Your task to perform on an android device: Show me popular videos on Youtube Image 0: 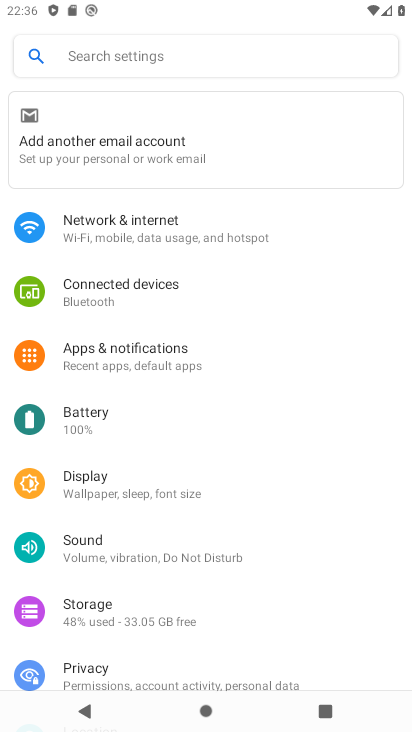
Step 0: press home button
Your task to perform on an android device: Show me popular videos on Youtube Image 1: 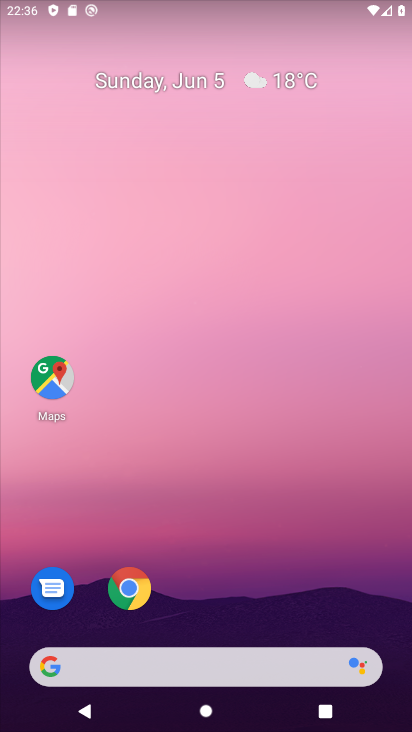
Step 1: drag from (395, 586) to (288, 118)
Your task to perform on an android device: Show me popular videos on Youtube Image 2: 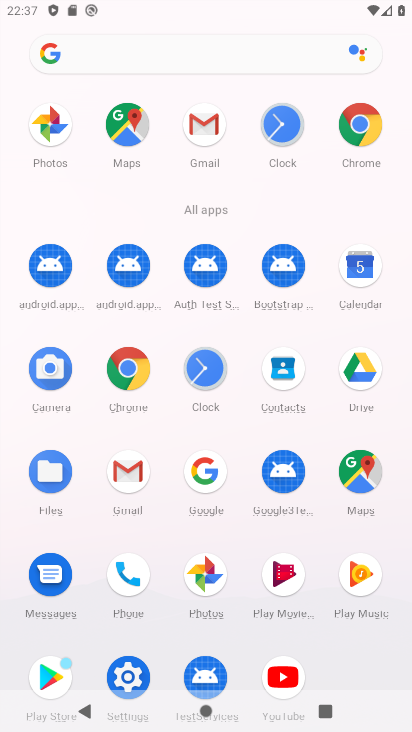
Step 2: click (288, 662)
Your task to perform on an android device: Show me popular videos on Youtube Image 3: 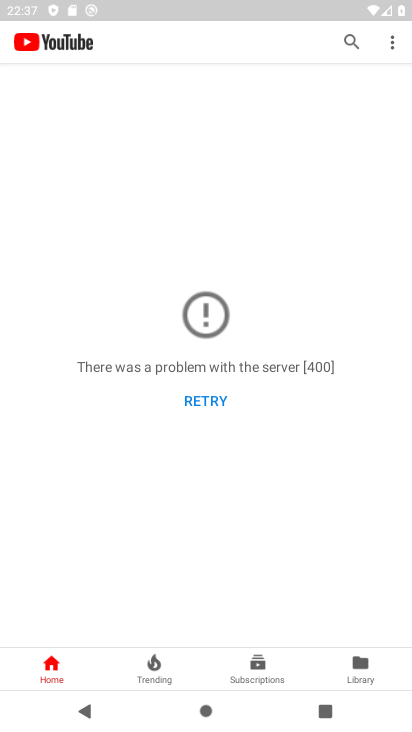
Step 3: click (170, 672)
Your task to perform on an android device: Show me popular videos on Youtube Image 4: 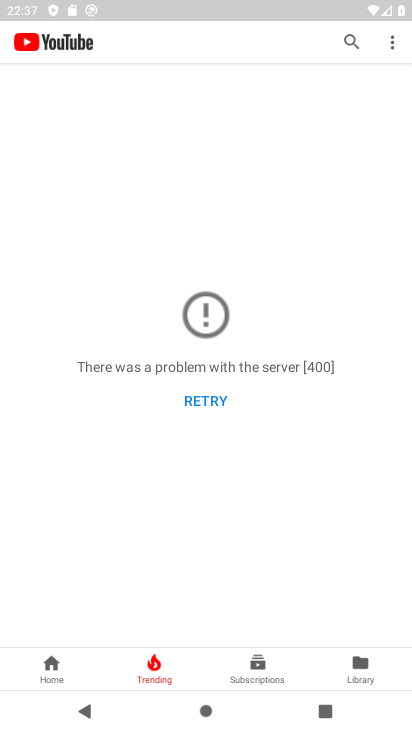
Step 4: task complete